Your task to perform on an android device: Go to CNN.com Image 0: 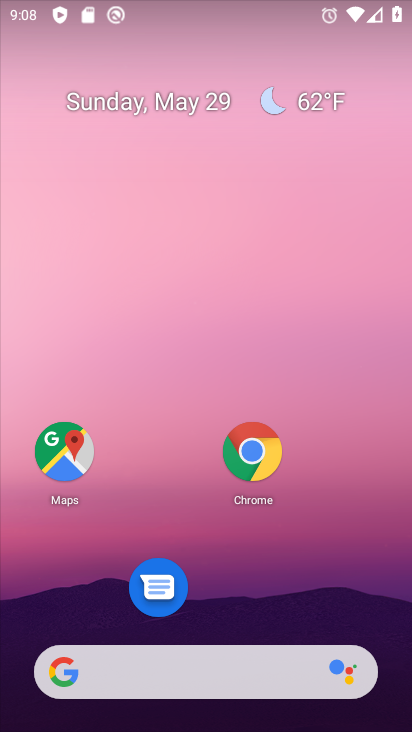
Step 0: click (180, 693)
Your task to perform on an android device: Go to CNN.com Image 1: 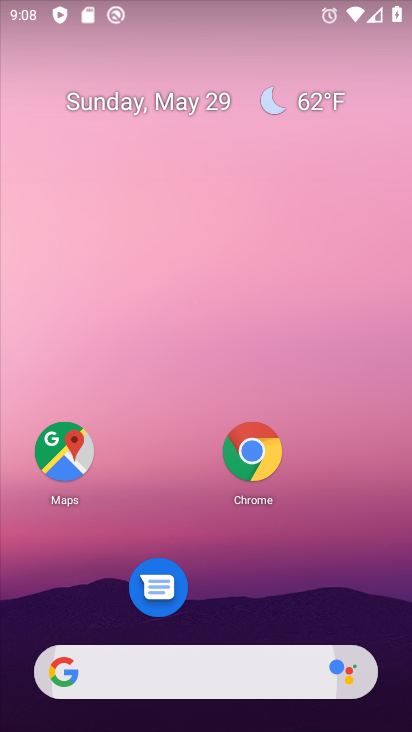
Step 1: click (167, 672)
Your task to perform on an android device: Go to CNN.com Image 2: 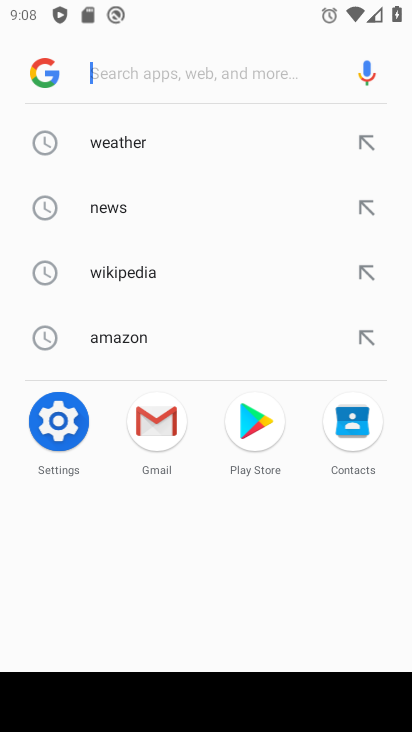
Step 2: type "cnn"
Your task to perform on an android device: Go to CNN.com Image 3: 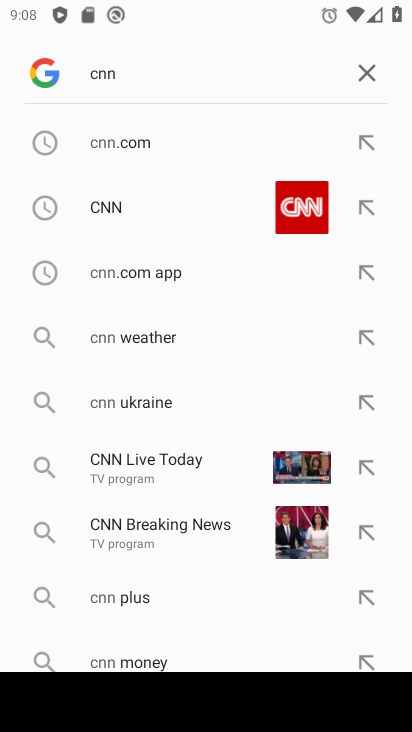
Step 3: click (130, 210)
Your task to perform on an android device: Go to CNN.com Image 4: 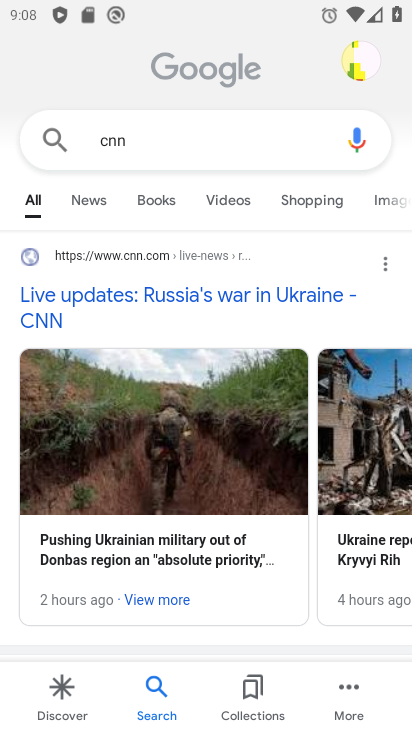
Step 4: task complete